Your task to perform on an android device: When is my next appointment? Image 0: 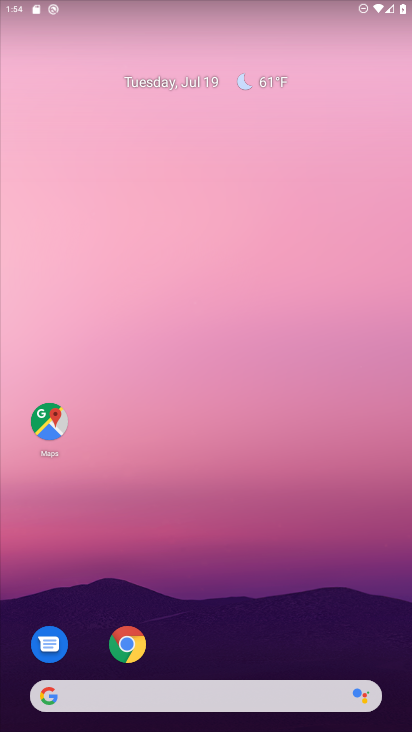
Step 0: press home button
Your task to perform on an android device: When is my next appointment? Image 1: 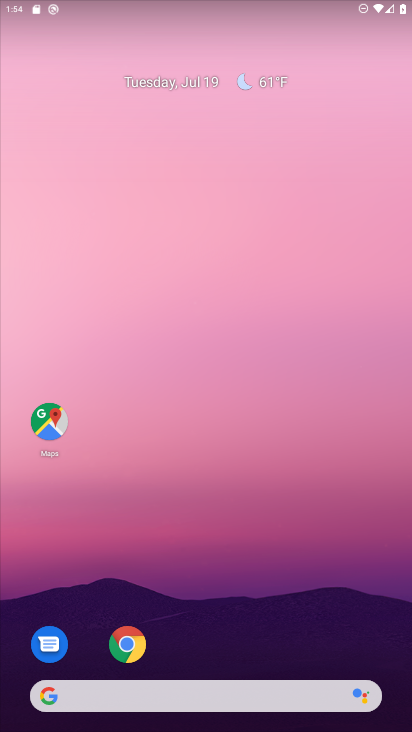
Step 1: drag from (393, 685) to (376, 9)
Your task to perform on an android device: When is my next appointment? Image 2: 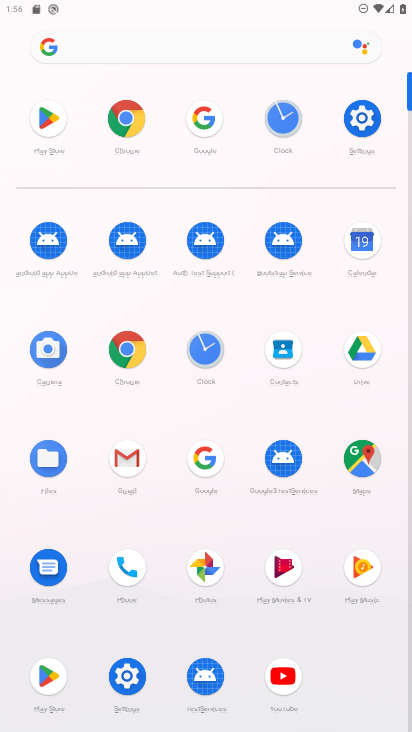
Step 2: click (355, 237)
Your task to perform on an android device: When is my next appointment? Image 3: 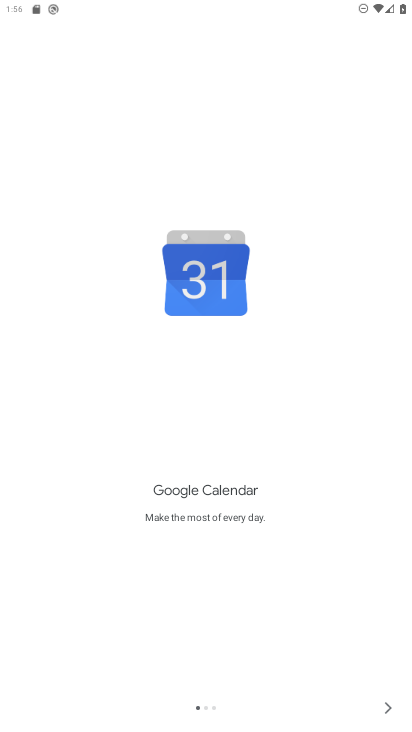
Step 3: click (373, 706)
Your task to perform on an android device: When is my next appointment? Image 4: 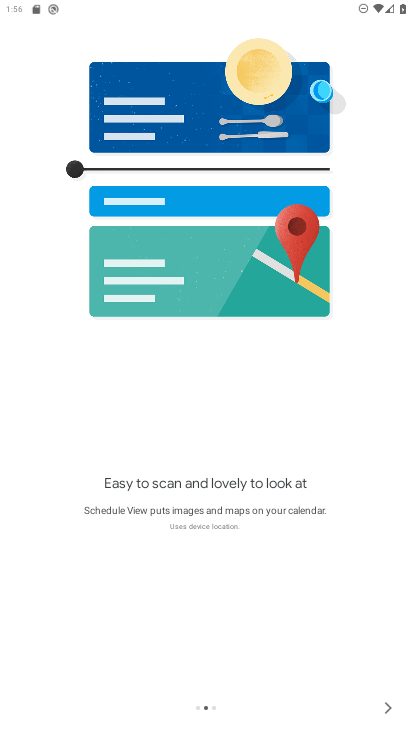
Step 4: click (373, 706)
Your task to perform on an android device: When is my next appointment? Image 5: 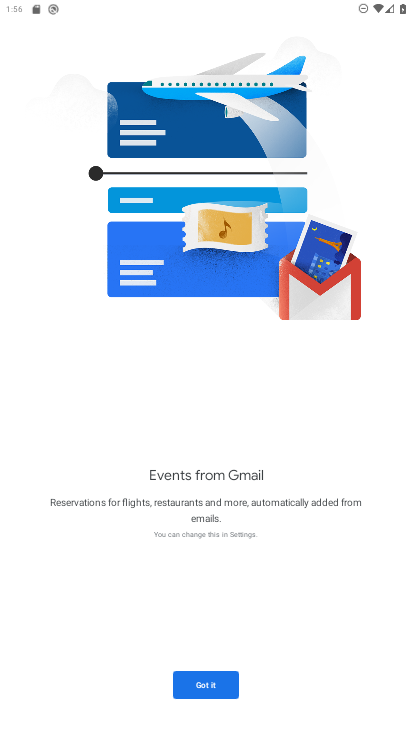
Step 5: click (225, 675)
Your task to perform on an android device: When is my next appointment? Image 6: 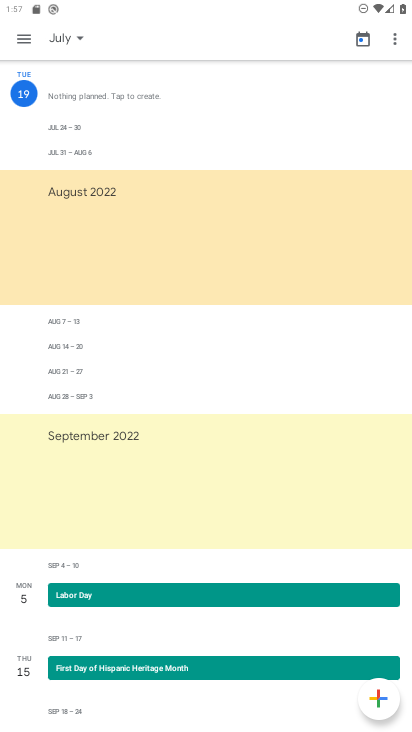
Step 6: task complete